Your task to perform on an android device: Go to Android settings Image 0: 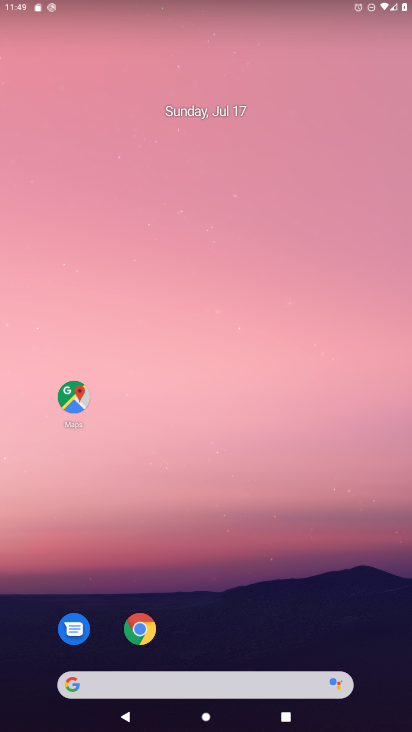
Step 0: drag from (226, 678) to (218, 105)
Your task to perform on an android device: Go to Android settings Image 1: 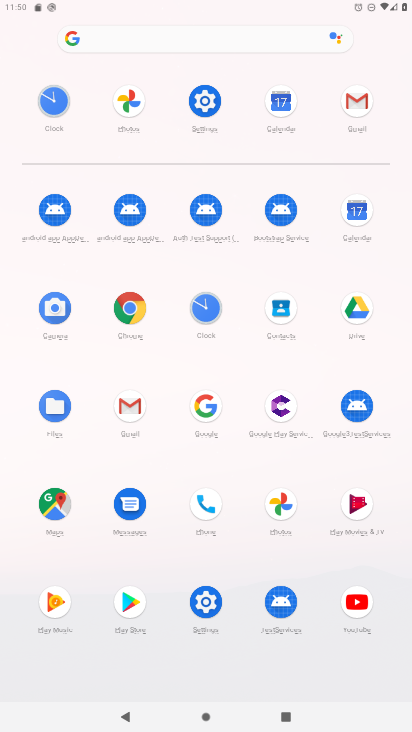
Step 1: click (204, 101)
Your task to perform on an android device: Go to Android settings Image 2: 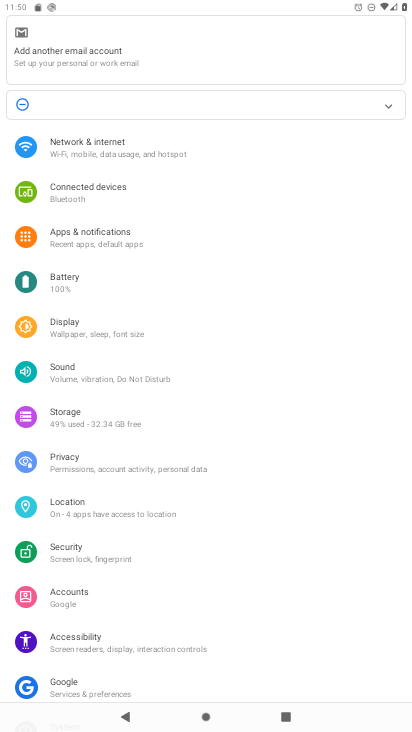
Step 2: task complete